Your task to perform on an android device: turn pop-ups on in chrome Image 0: 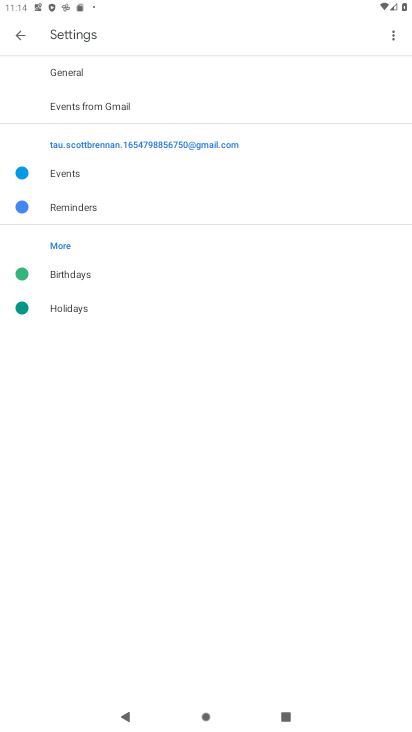
Step 0: press home button
Your task to perform on an android device: turn pop-ups on in chrome Image 1: 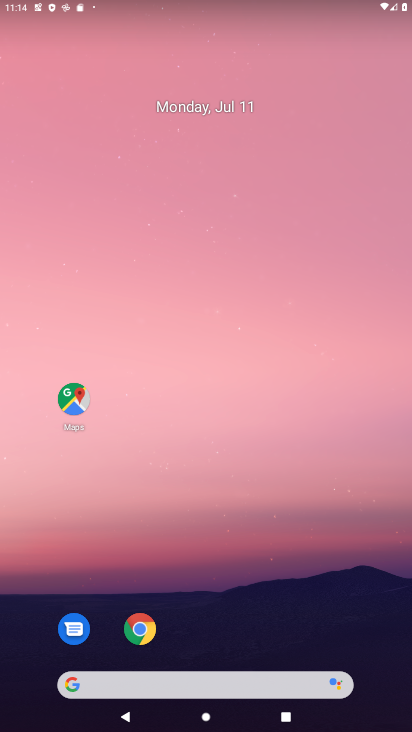
Step 1: click (148, 624)
Your task to perform on an android device: turn pop-ups on in chrome Image 2: 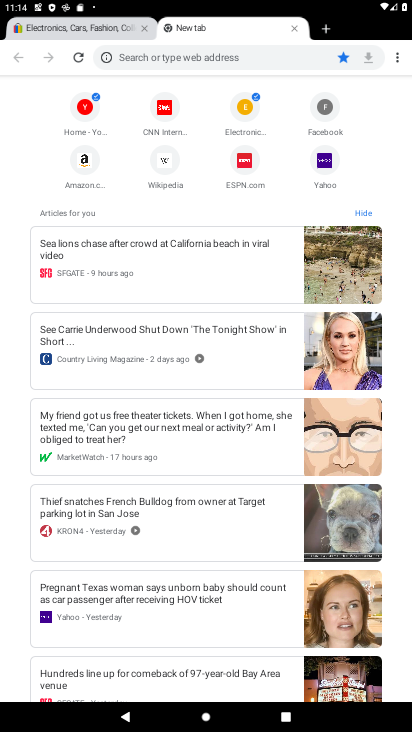
Step 2: click (393, 54)
Your task to perform on an android device: turn pop-ups on in chrome Image 3: 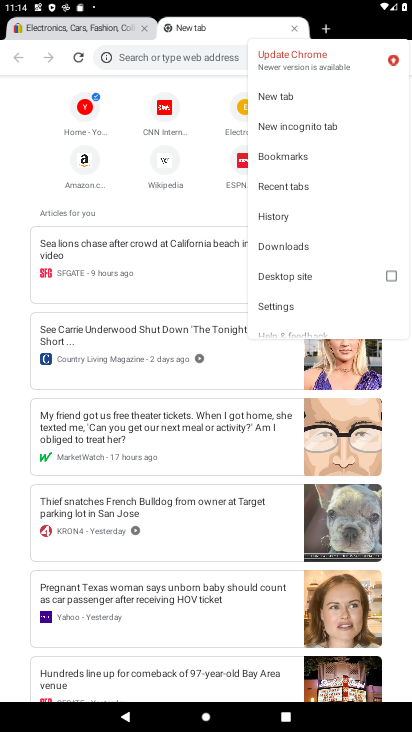
Step 3: click (311, 313)
Your task to perform on an android device: turn pop-ups on in chrome Image 4: 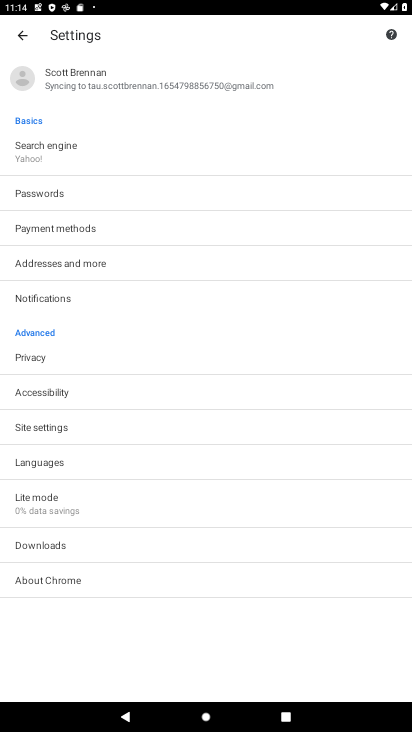
Step 4: click (170, 430)
Your task to perform on an android device: turn pop-ups on in chrome Image 5: 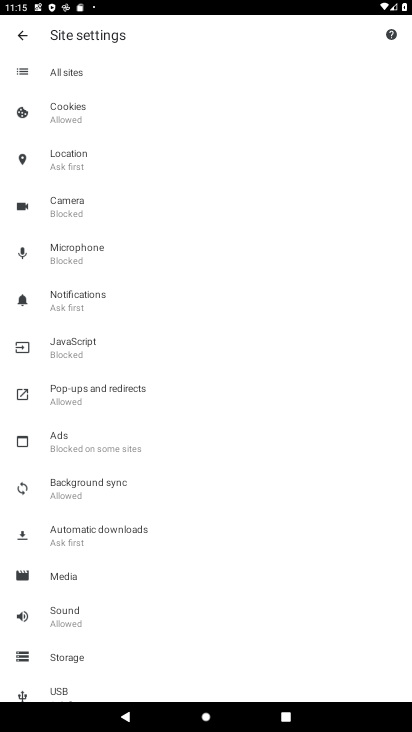
Step 5: click (129, 392)
Your task to perform on an android device: turn pop-ups on in chrome Image 6: 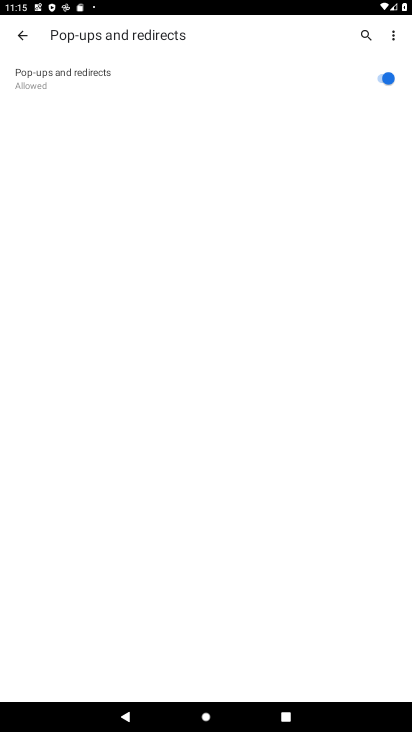
Step 6: task complete